Your task to perform on an android device: turn notification dots on Image 0: 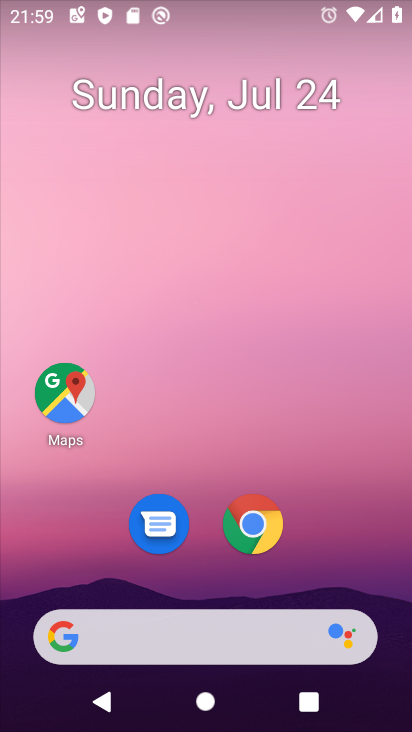
Step 0: press home button
Your task to perform on an android device: turn notification dots on Image 1: 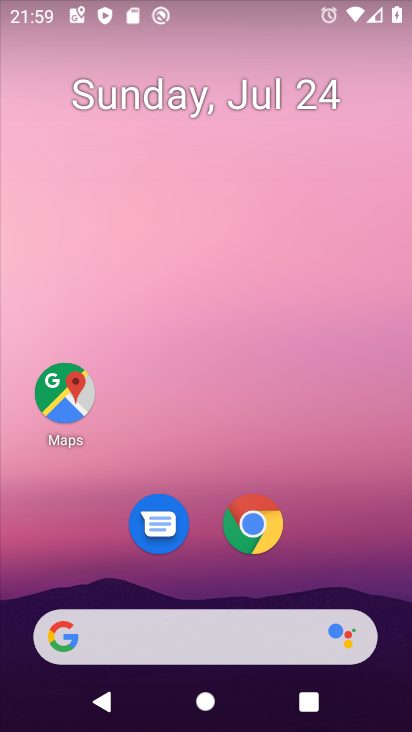
Step 1: drag from (233, 625) to (345, 111)
Your task to perform on an android device: turn notification dots on Image 2: 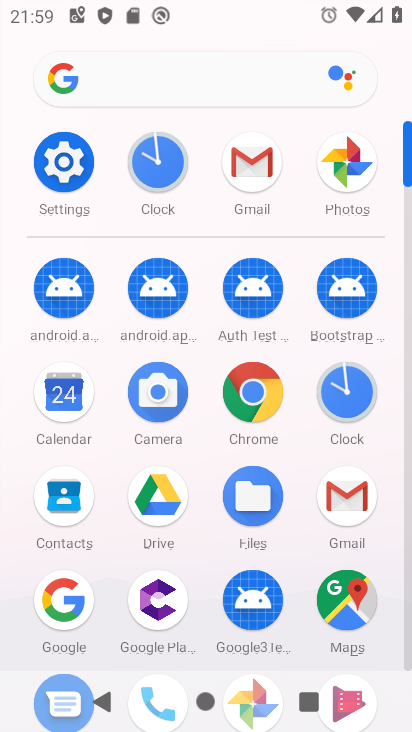
Step 2: click (67, 164)
Your task to perform on an android device: turn notification dots on Image 3: 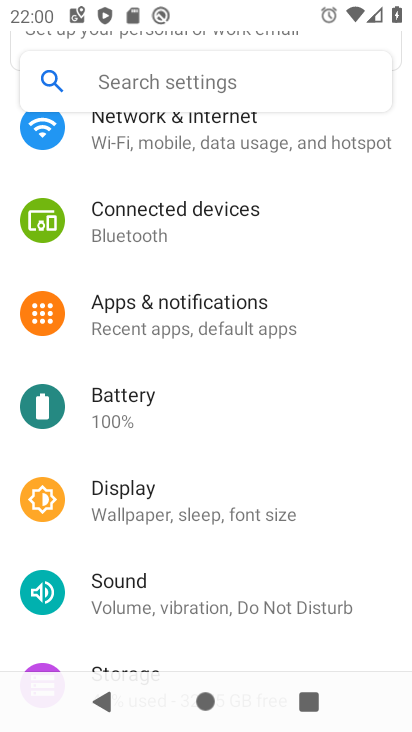
Step 3: click (183, 310)
Your task to perform on an android device: turn notification dots on Image 4: 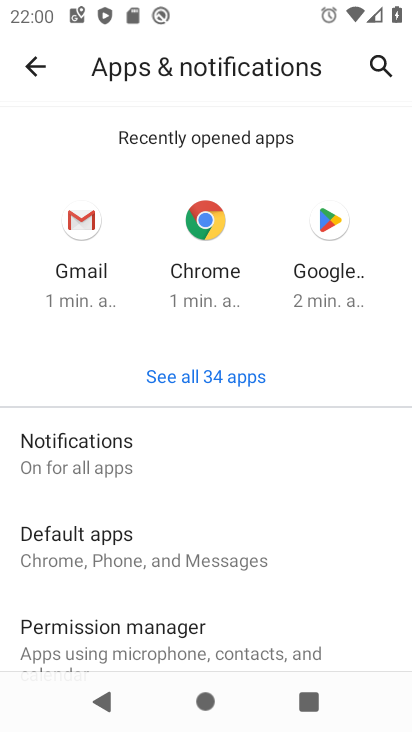
Step 4: click (115, 451)
Your task to perform on an android device: turn notification dots on Image 5: 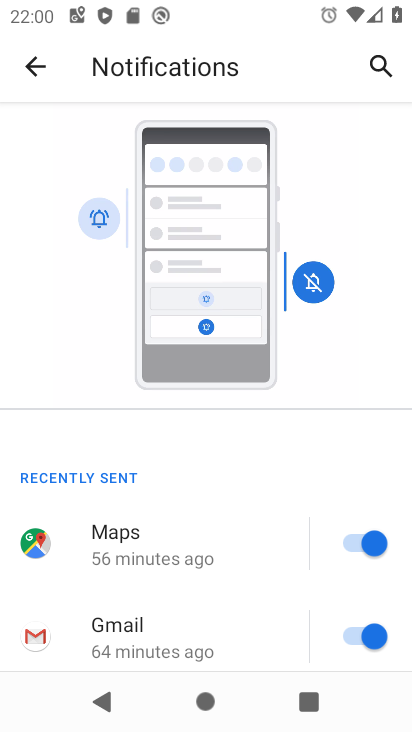
Step 5: drag from (231, 537) to (393, 20)
Your task to perform on an android device: turn notification dots on Image 6: 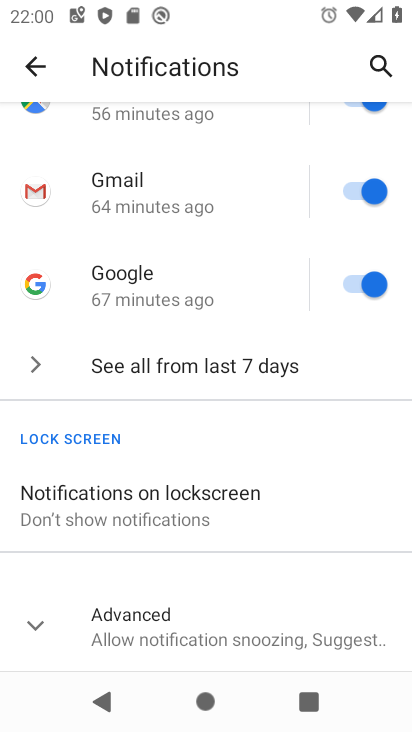
Step 6: click (168, 624)
Your task to perform on an android device: turn notification dots on Image 7: 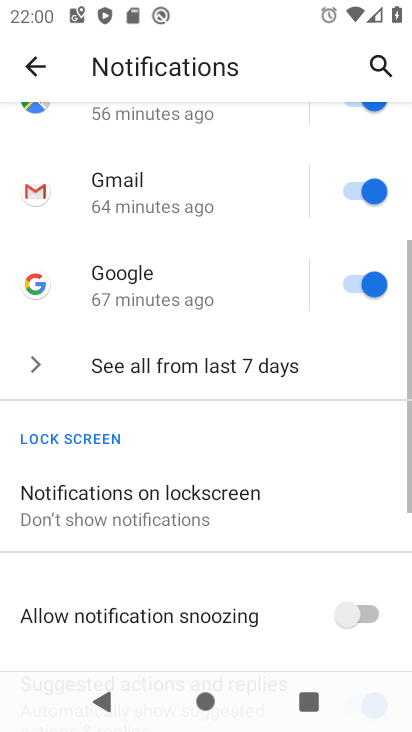
Step 7: task complete